Your task to perform on an android device: see sites visited before in the chrome app Image 0: 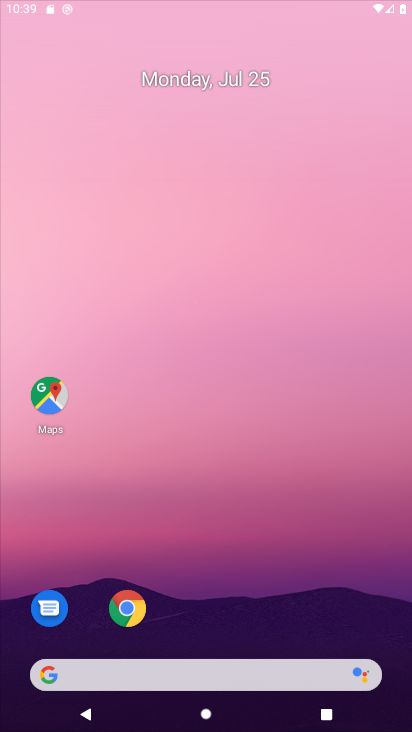
Step 0: drag from (14, 207) to (213, 8)
Your task to perform on an android device: see sites visited before in the chrome app Image 1: 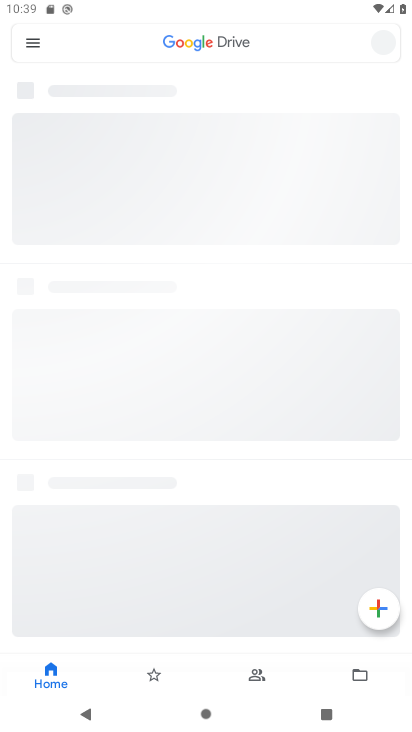
Step 1: drag from (246, 376) to (210, 15)
Your task to perform on an android device: see sites visited before in the chrome app Image 2: 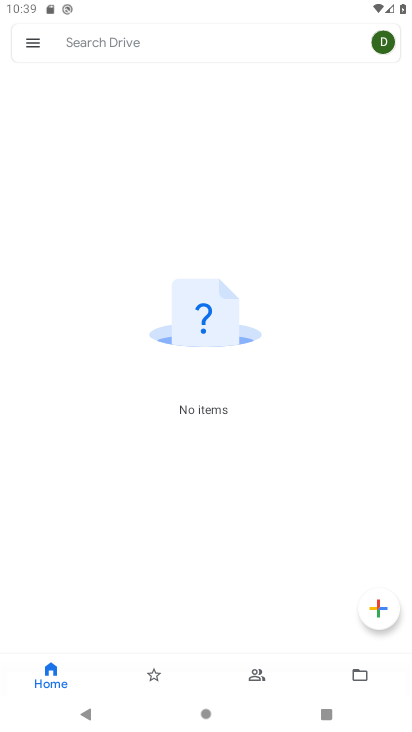
Step 2: press back button
Your task to perform on an android device: see sites visited before in the chrome app Image 3: 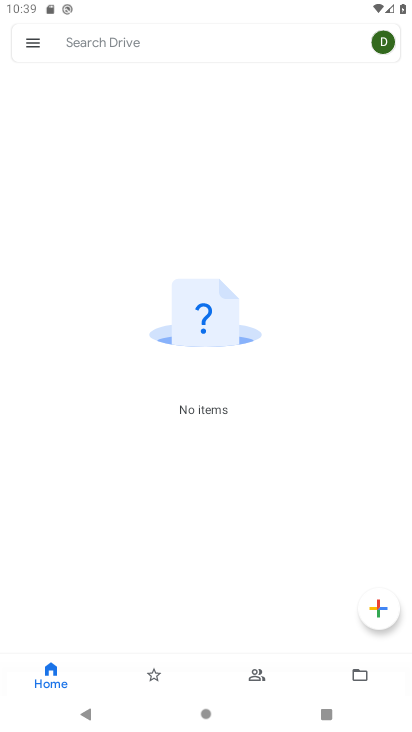
Step 3: press back button
Your task to perform on an android device: see sites visited before in the chrome app Image 4: 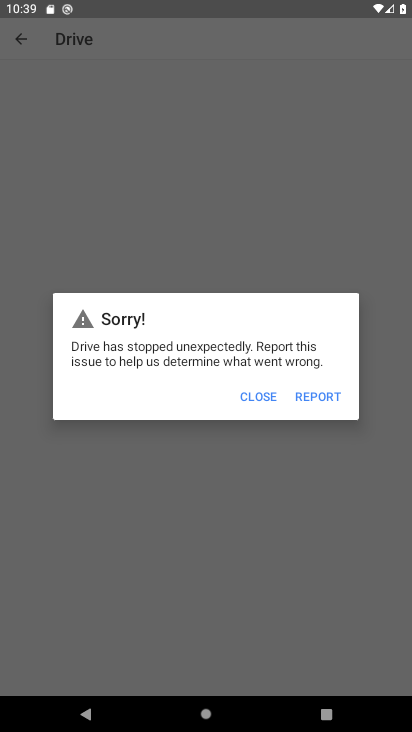
Step 4: press home button
Your task to perform on an android device: see sites visited before in the chrome app Image 5: 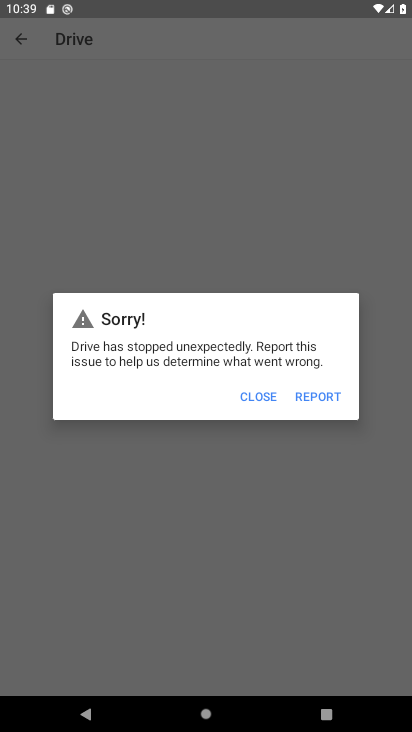
Step 5: press home button
Your task to perform on an android device: see sites visited before in the chrome app Image 6: 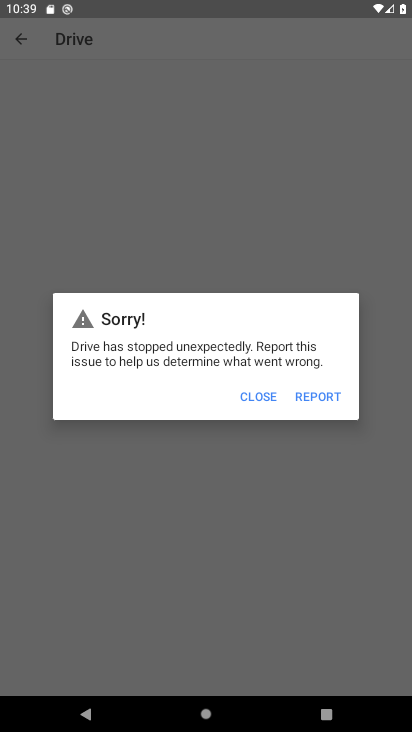
Step 6: click (268, 399)
Your task to perform on an android device: see sites visited before in the chrome app Image 7: 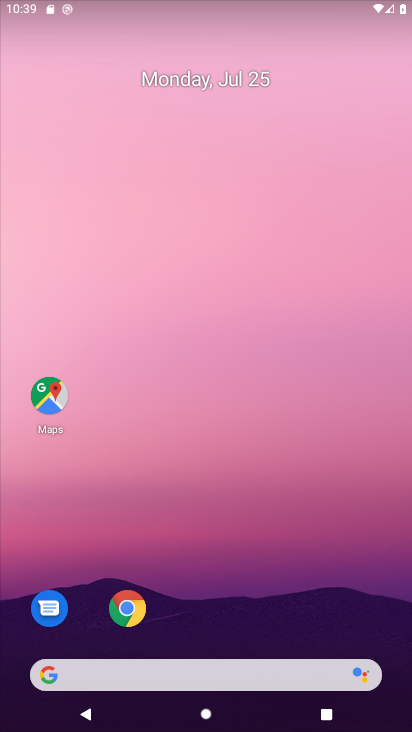
Step 7: click (267, 395)
Your task to perform on an android device: see sites visited before in the chrome app Image 8: 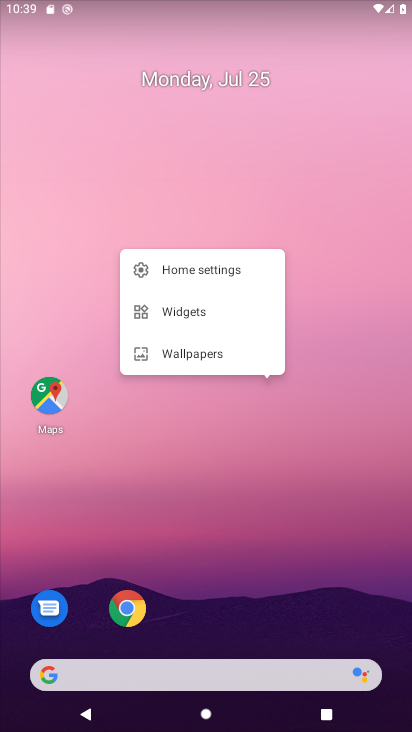
Step 8: click (172, 191)
Your task to perform on an android device: see sites visited before in the chrome app Image 9: 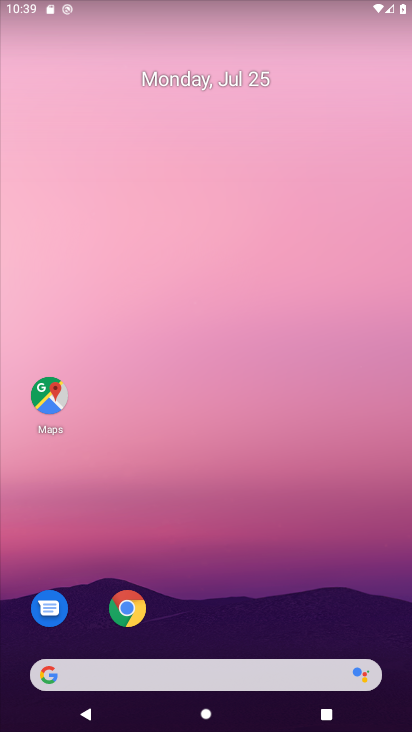
Step 9: click (169, 189)
Your task to perform on an android device: see sites visited before in the chrome app Image 10: 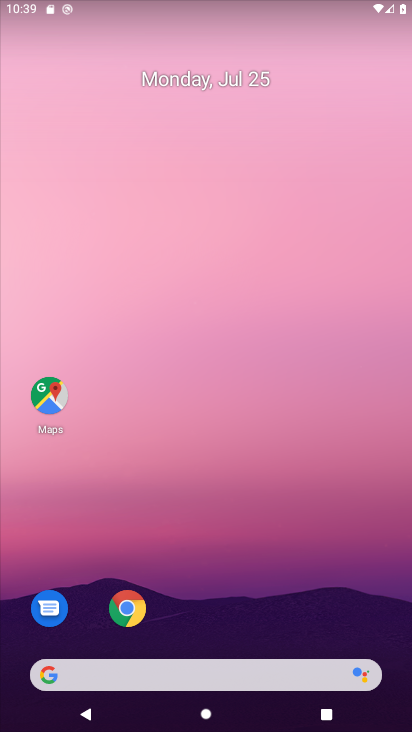
Step 10: drag from (228, 548) to (205, 348)
Your task to perform on an android device: see sites visited before in the chrome app Image 11: 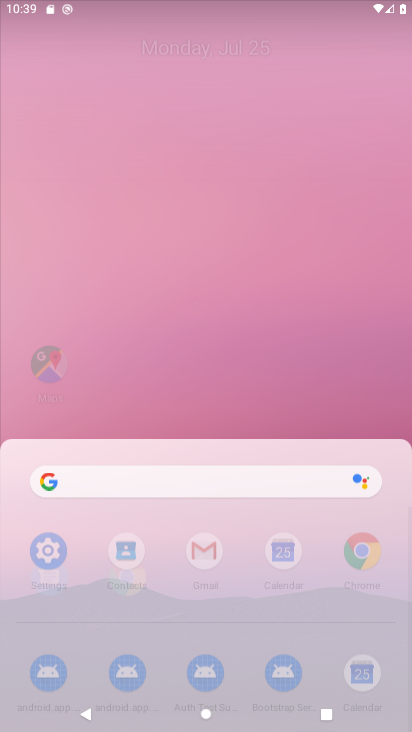
Step 11: drag from (259, 584) to (267, 236)
Your task to perform on an android device: see sites visited before in the chrome app Image 12: 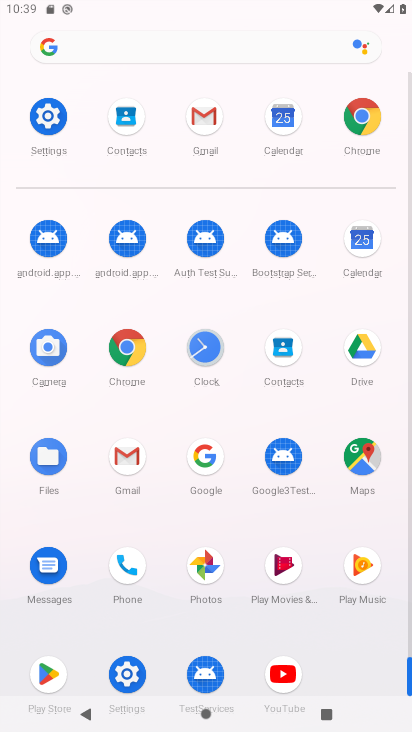
Step 12: drag from (284, 582) to (267, 344)
Your task to perform on an android device: see sites visited before in the chrome app Image 13: 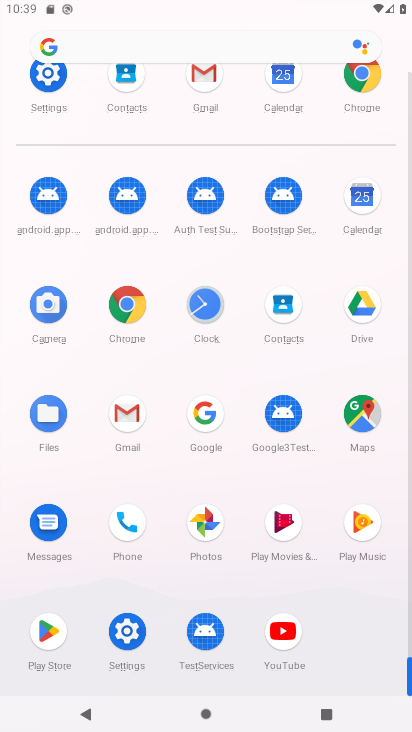
Step 13: click (135, 302)
Your task to perform on an android device: see sites visited before in the chrome app Image 14: 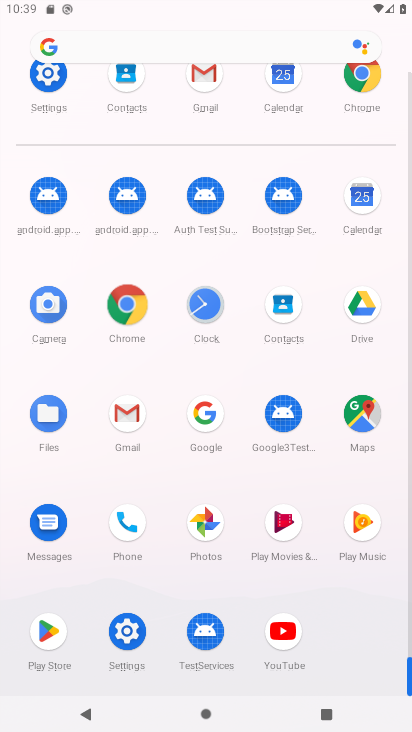
Step 14: click (135, 302)
Your task to perform on an android device: see sites visited before in the chrome app Image 15: 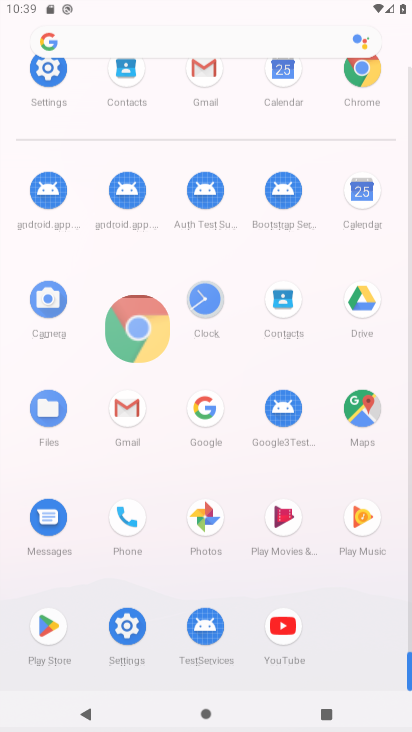
Step 15: click (134, 302)
Your task to perform on an android device: see sites visited before in the chrome app Image 16: 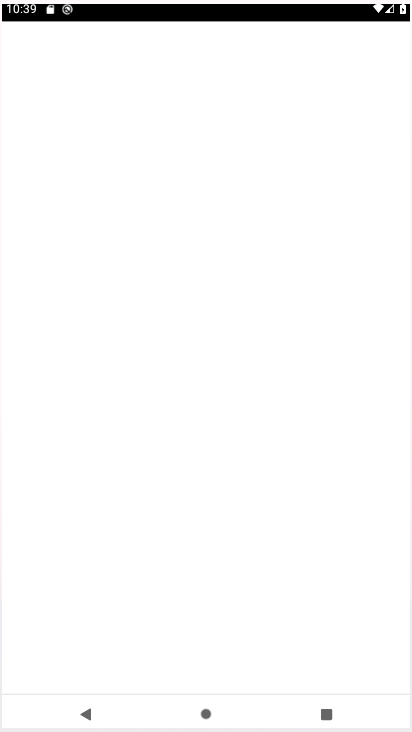
Step 16: click (133, 303)
Your task to perform on an android device: see sites visited before in the chrome app Image 17: 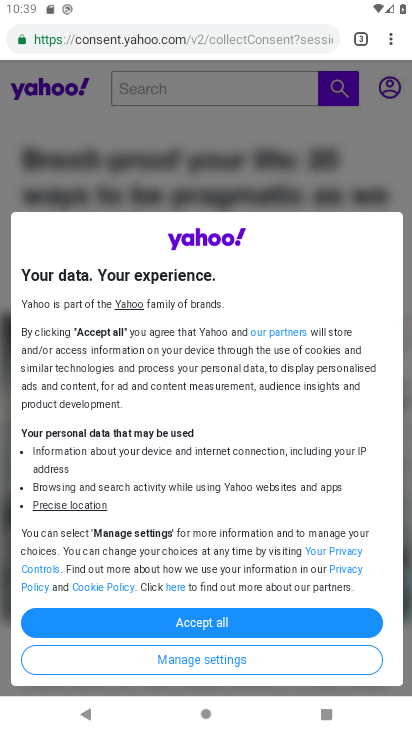
Step 17: click (329, 278)
Your task to perform on an android device: see sites visited before in the chrome app Image 18: 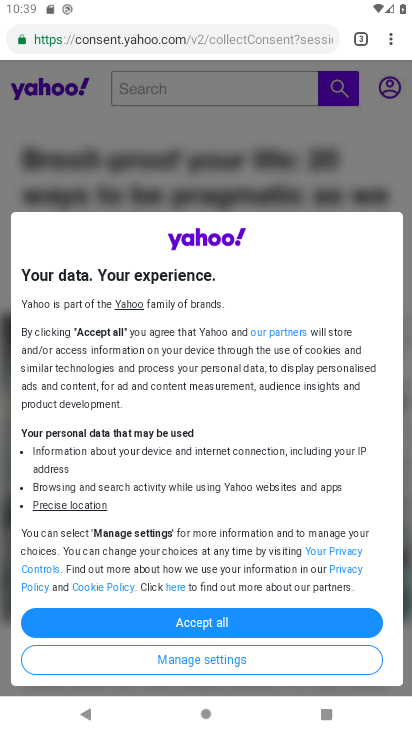
Step 18: click (394, 38)
Your task to perform on an android device: see sites visited before in the chrome app Image 19: 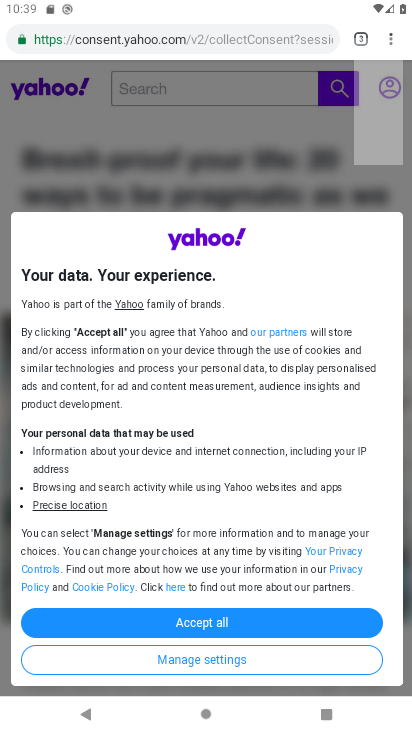
Step 19: click (394, 38)
Your task to perform on an android device: see sites visited before in the chrome app Image 20: 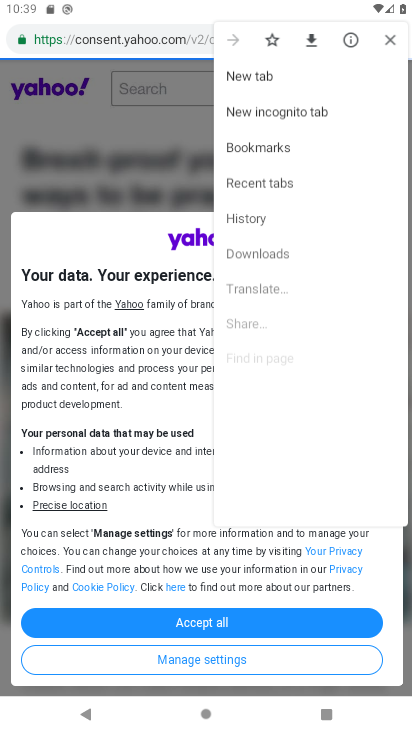
Step 20: click (390, 37)
Your task to perform on an android device: see sites visited before in the chrome app Image 21: 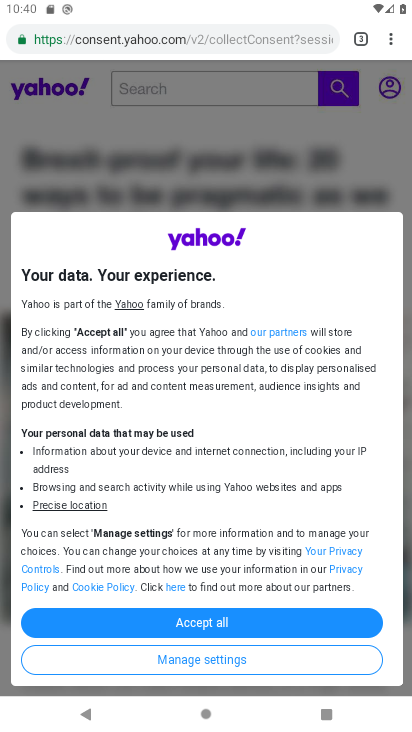
Step 21: click (392, 37)
Your task to perform on an android device: see sites visited before in the chrome app Image 22: 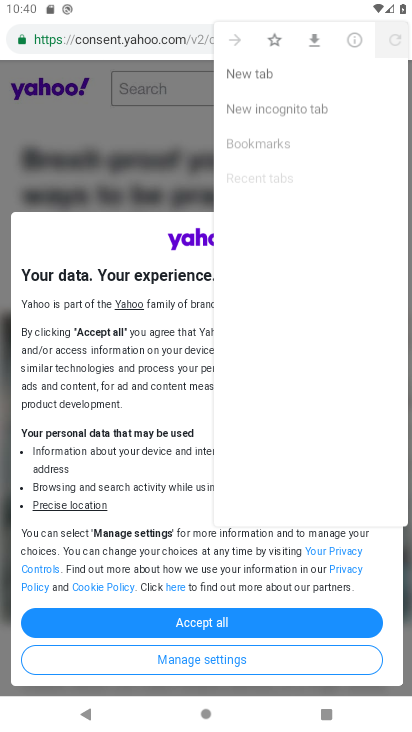
Step 22: click (388, 34)
Your task to perform on an android device: see sites visited before in the chrome app Image 23: 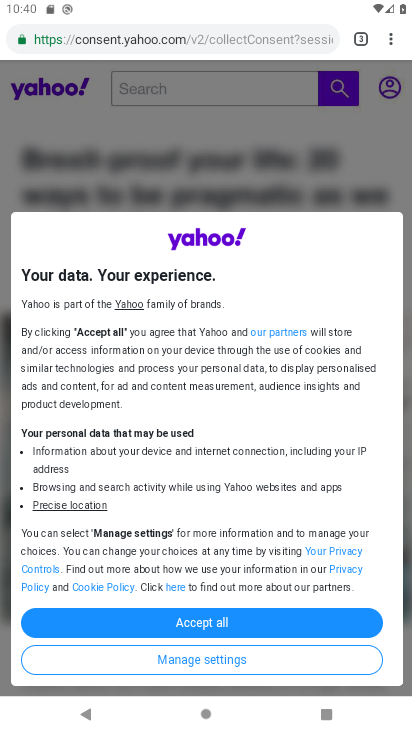
Step 23: drag from (389, 29) to (240, 176)
Your task to perform on an android device: see sites visited before in the chrome app Image 24: 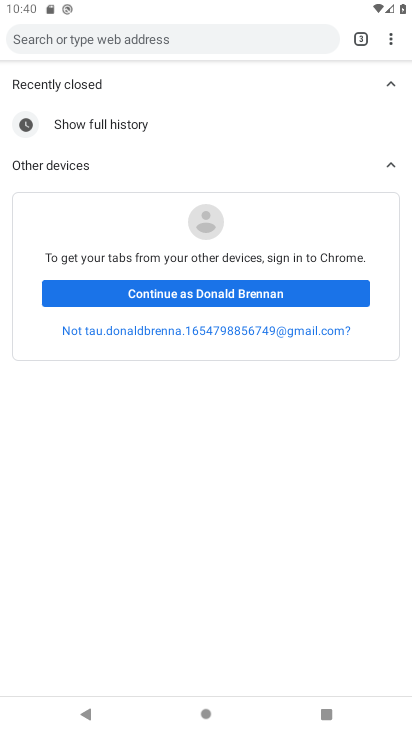
Step 24: click (245, 179)
Your task to perform on an android device: see sites visited before in the chrome app Image 25: 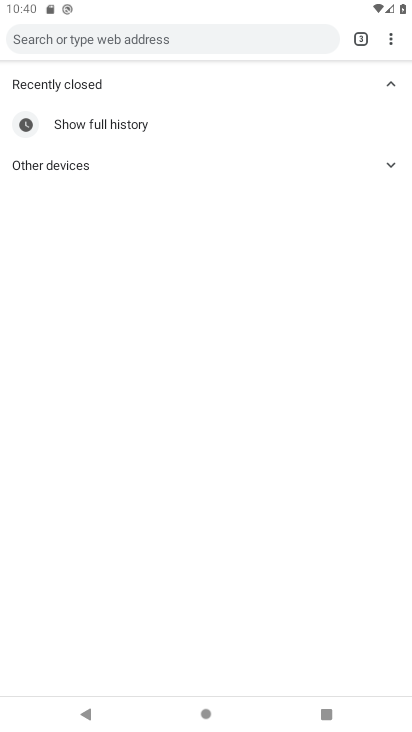
Step 25: task complete